Your task to perform on an android device: change the upload size in google photos Image 0: 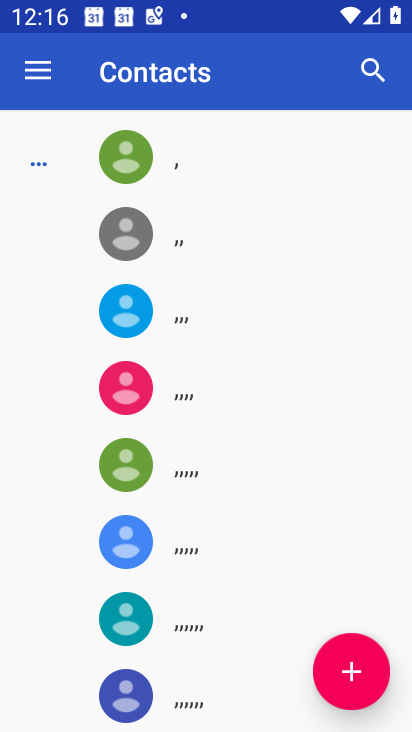
Step 0: press home button
Your task to perform on an android device: change the upload size in google photos Image 1: 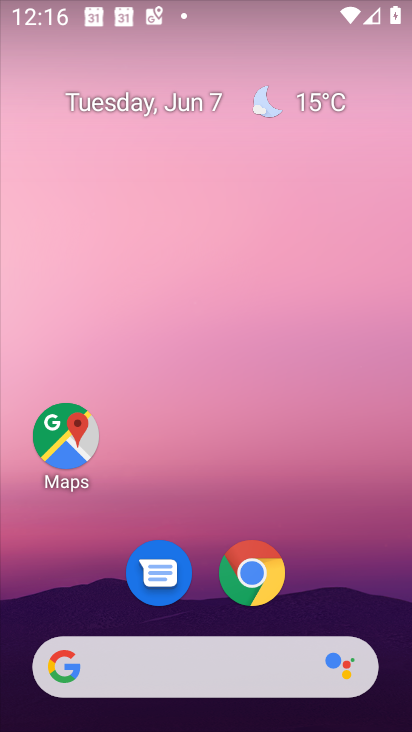
Step 1: drag from (295, 530) to (306, 66)
Your task to perform on an android device: change the upload size in google photos Image 2: 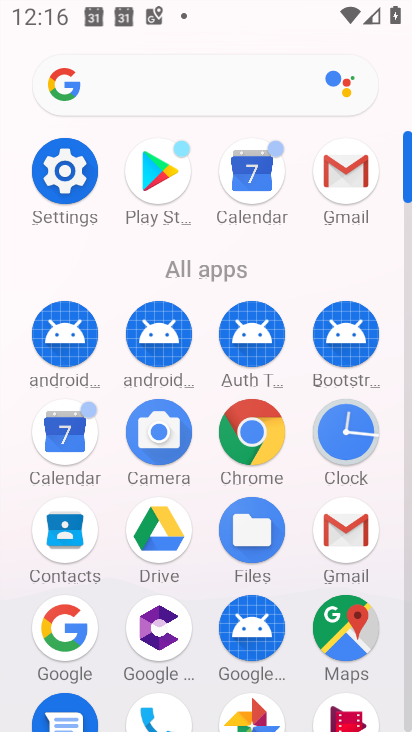
Step 2: click (231, 710)
Your task to perform on an android device: change the upload size in google photos Image 3: 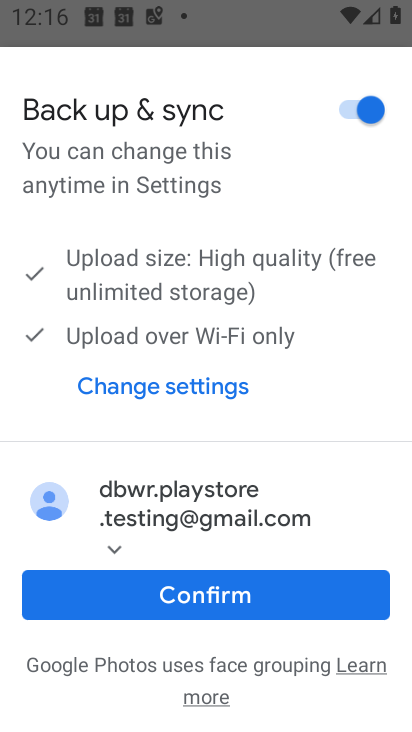
Step 3: click (286, 589)
Your task to perform on an android device: change the upload size in google photos Image 4: 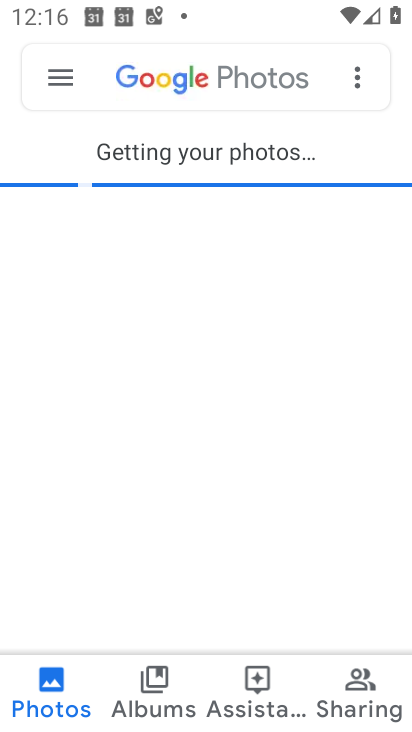
Step 4: click (24, 69)
Your task to perform on an android device: change the upload size in google photos Image 5: 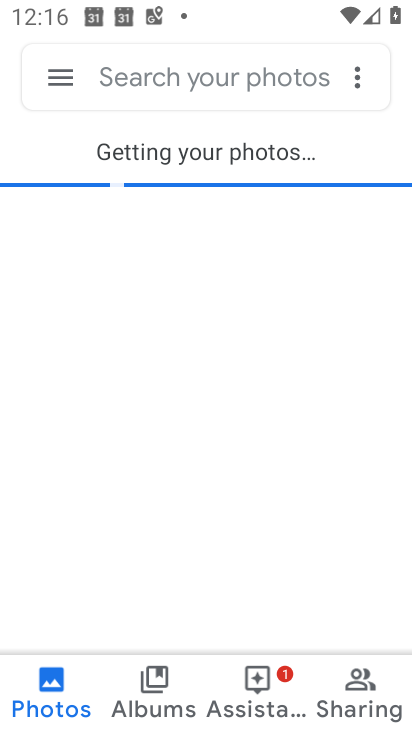
Step 5: click (58, 72)
Your task to perform on an android device: change the upload size in google photos Image 6: 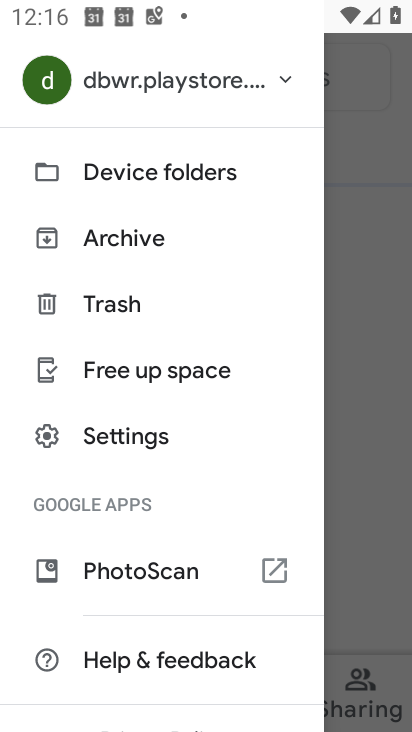
Step 6: click (137, 424)
Your task to perform on an android device: change the upload size in google photos Image 7: 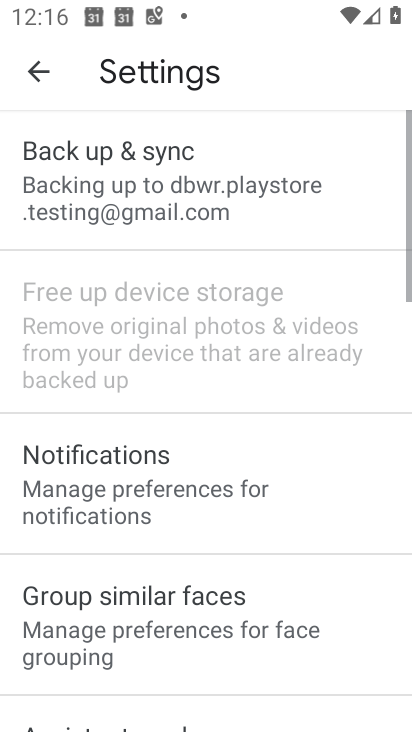
Step 7: click (143, 167)
Your task to perform on an android device: change the upload size in google photos Image 8: 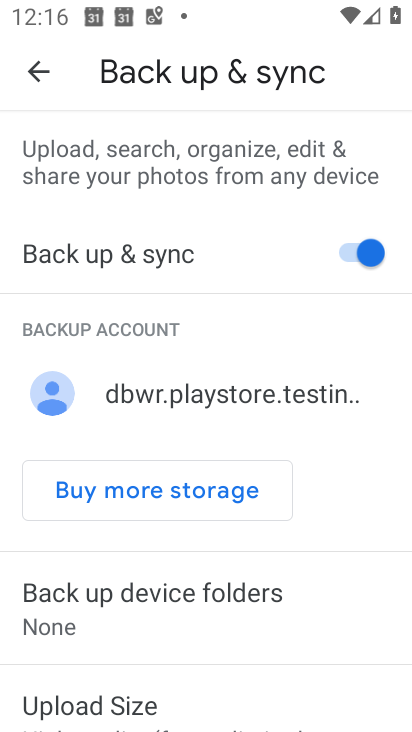
Step 8: click (266, 689)
Your task to perform on an android device: change the upload size in google photos Image 9: 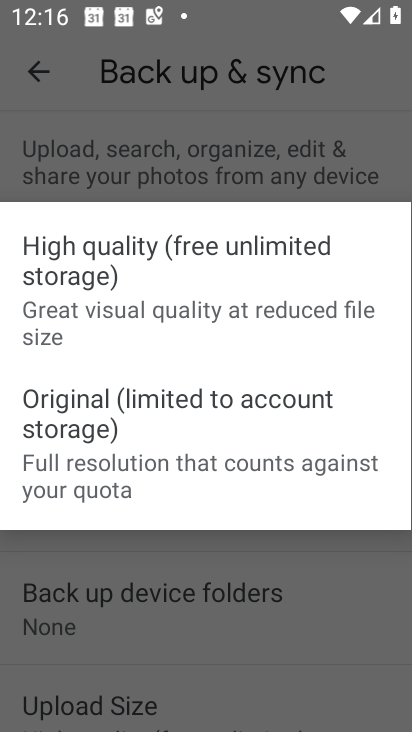
Step 9: click (211, 312)
Your task to perform on an android device: change the upload size in google photos Image 10: 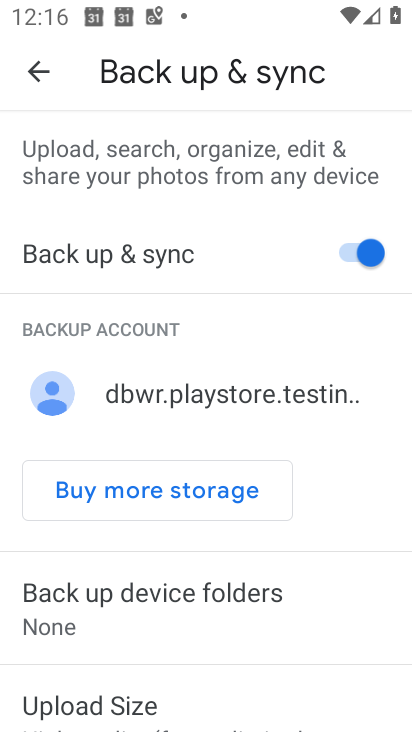
Step 10: task complete